Your task to perform on an android device: Look up the best rated kitchen knives on Amazon. Image 0: 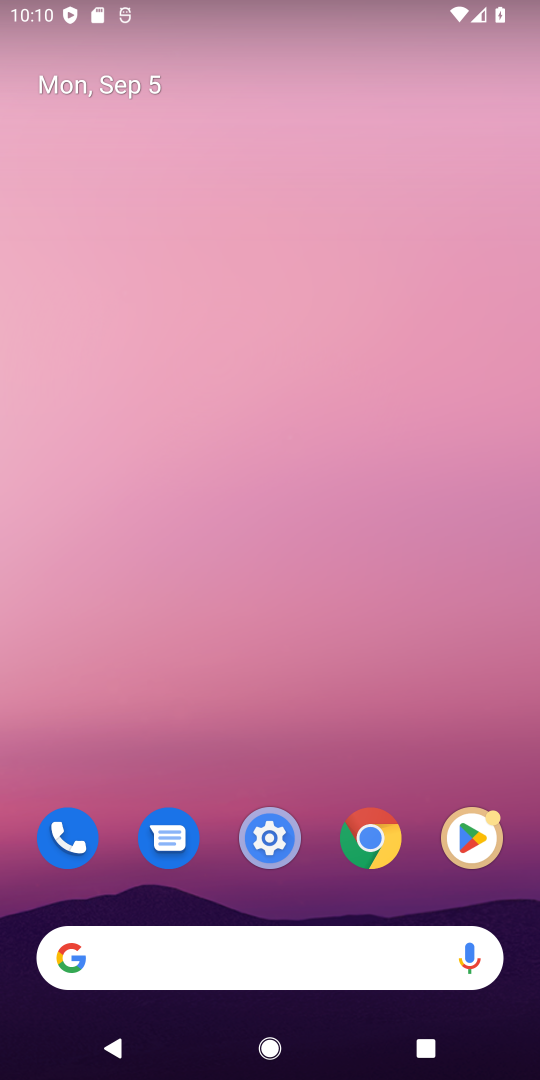
Step 0: click (330, 942)
Your task to perform on an android device: Look up the best rated kitchen knives on Amazon. Image 1: 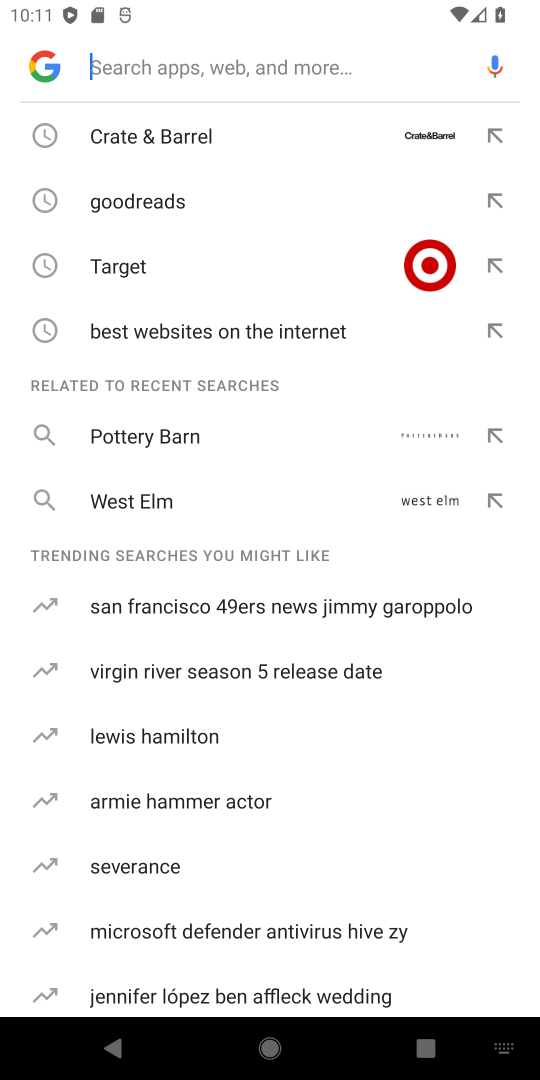
Step 1: type "Amazon"
Your task to perform on an android device: Look up the best rated kitchen knives on Amazon. Image 2: 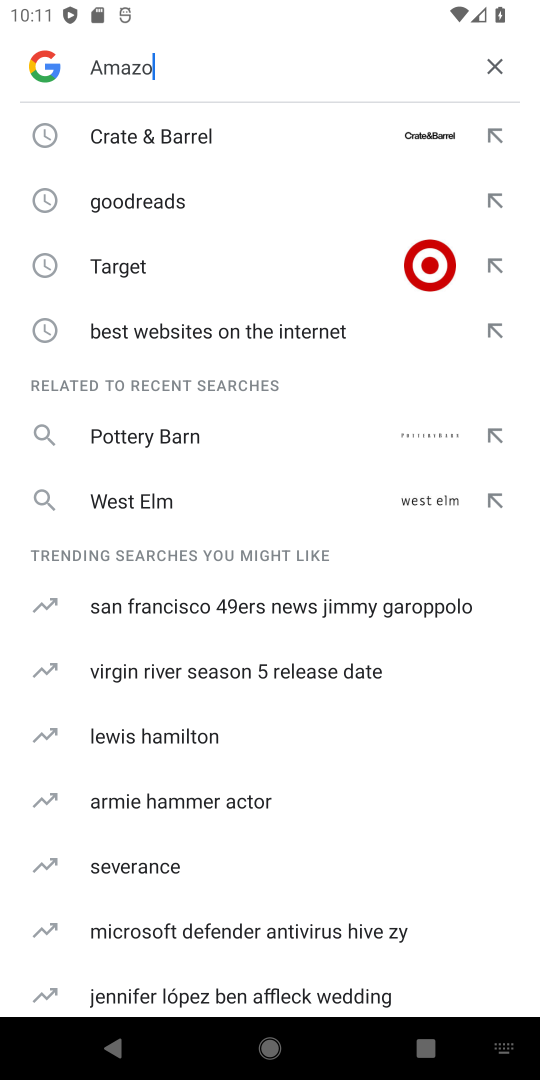
Step 2: type ""
Your task to perform on an android device: Look up the best rated kitchen knives on Amazon. Image 3: 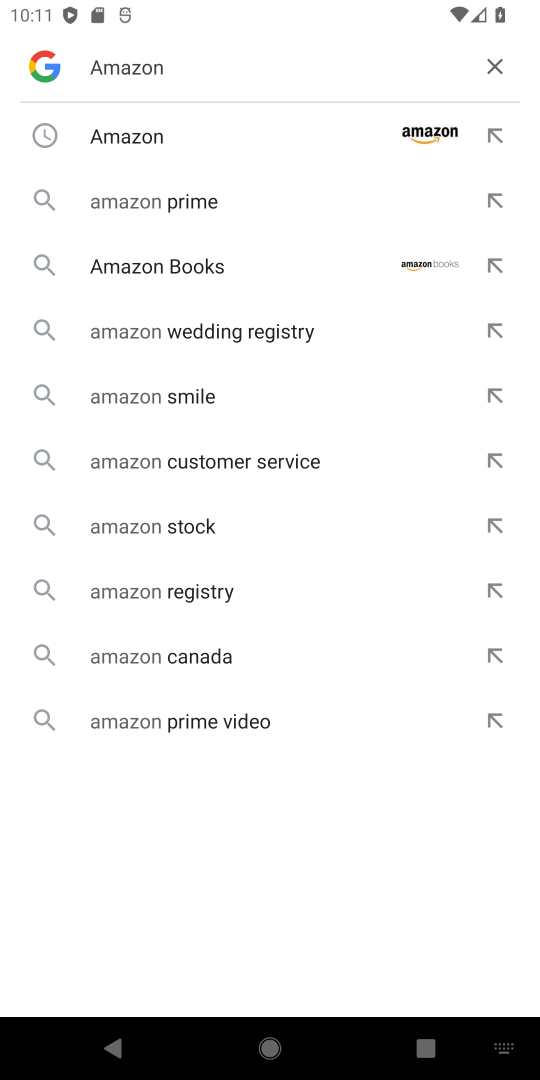
Step 3: click (99, 135)
Your task to perform on an android device: Look up the best rated kitchen knives on Amazon. Image 4: 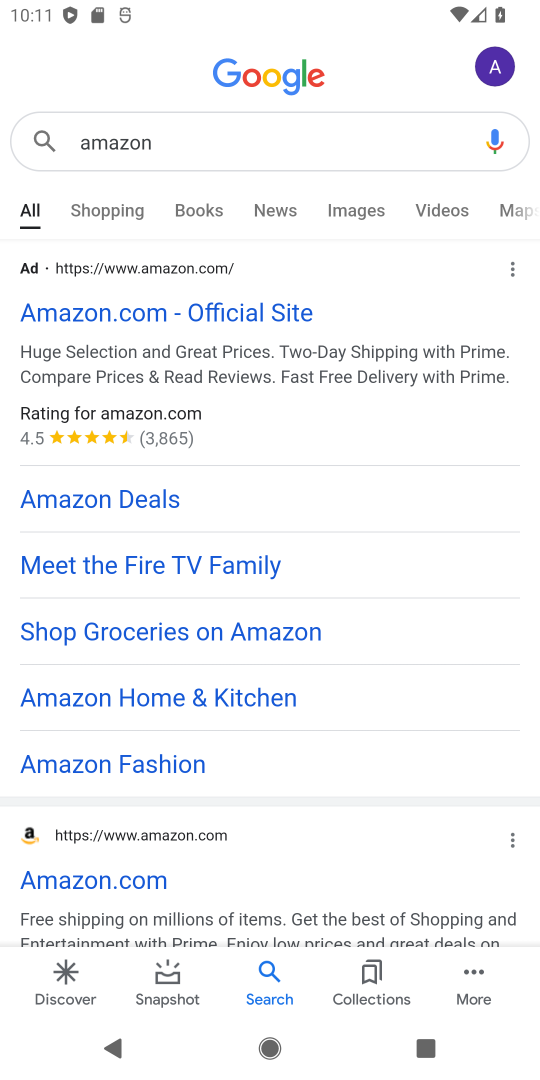
Step 4: click (173, 531)
Your task to perform on an android device: Look up the best rated kitchen knives on Amazon. Image 5: 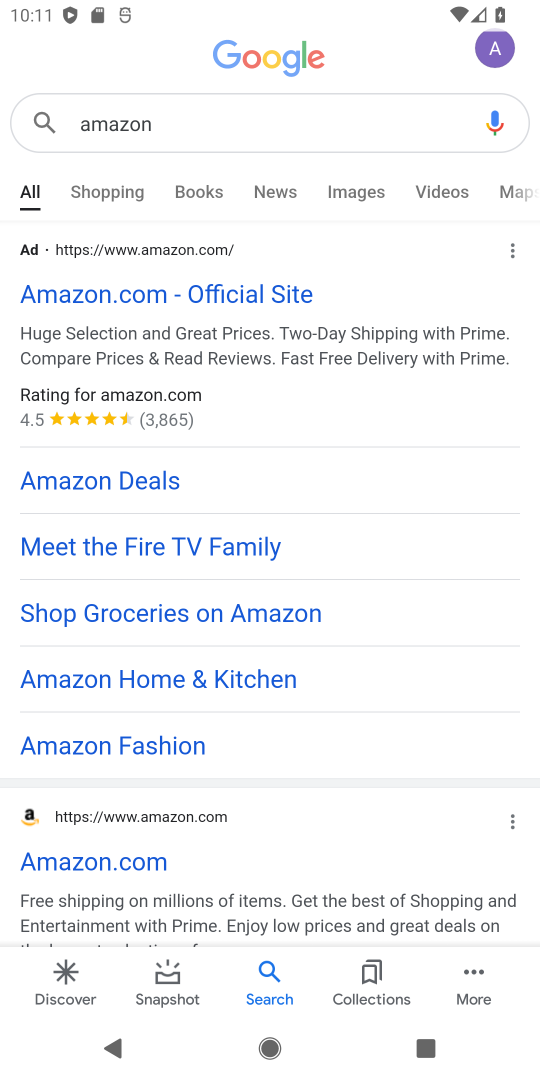
Step 5: click (102, 875)
Your task to perform on an android device: Look up the best rated kitchen knives on Amazon. Image 6: 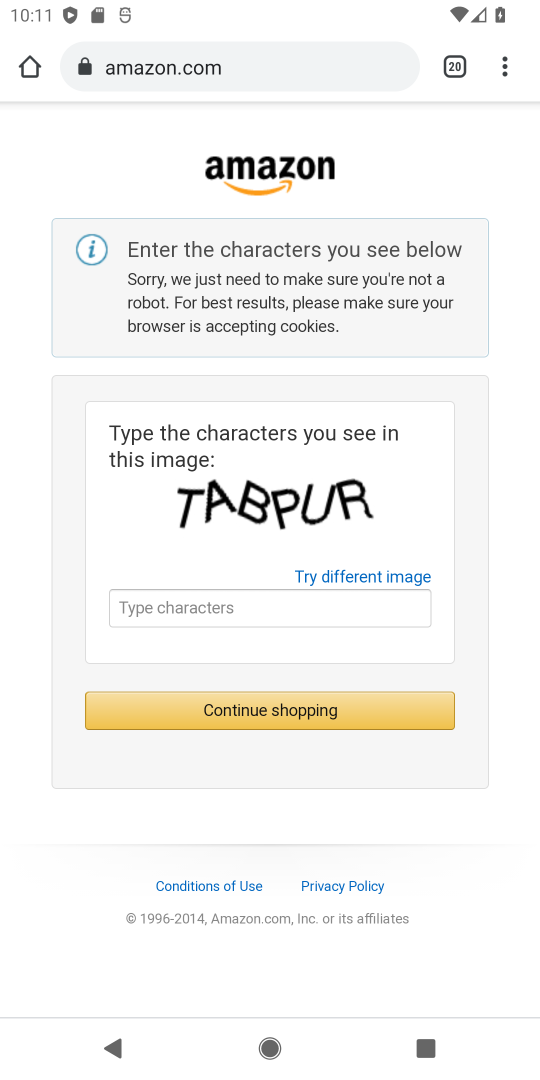
Step 6: task complete